Your task to perform on an android device: Open accessibility settings Image 0: 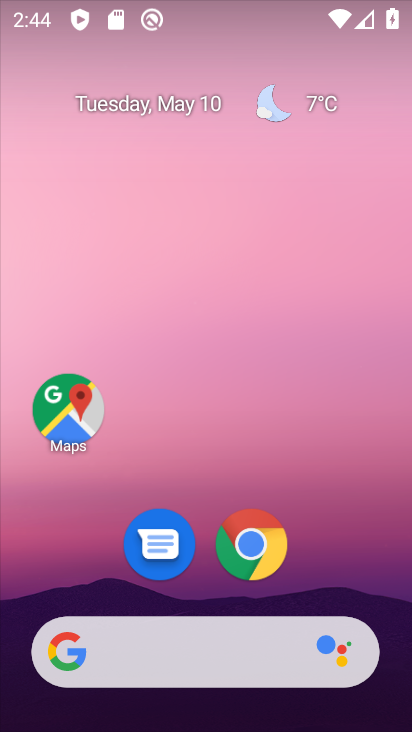
Step 0: drag from (313, 559) to (337, 104)
Your task to perform on an android device: Open accessibility settings Image 1: 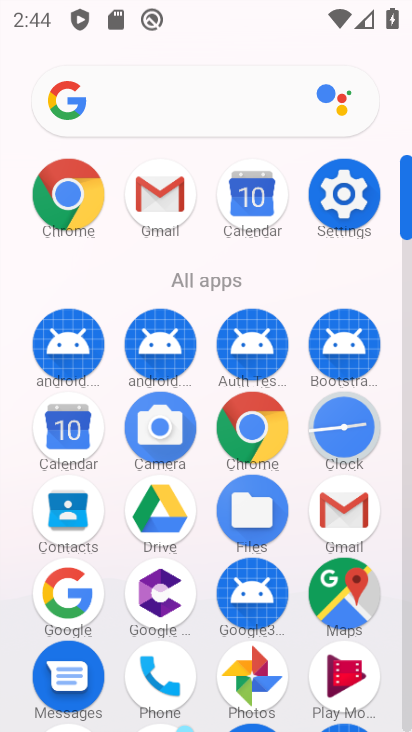
Step 1: click (340, 225)
Your task to perform on an android device: Open accessibility settings Image 2: 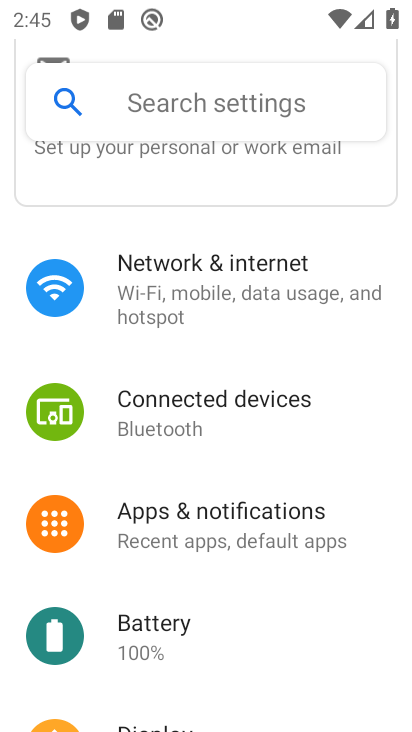
Step 2: drag from (256, 588) to (272, 292)
Your task to perform on an android device: Open accessibility settings Image 3: 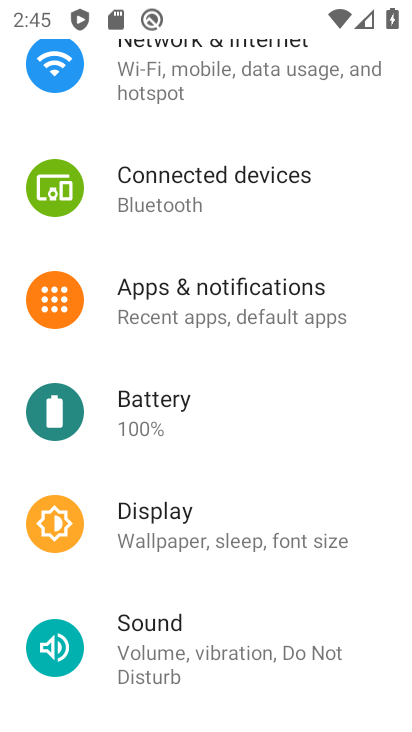
Step 3: drag from (258, 613) to (291, 221)
Your task to perform on an android device: Open accessibility settings Image 4: 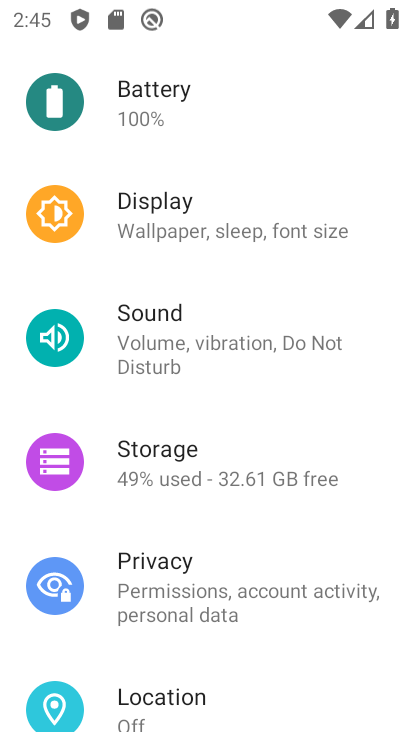
Step 4: drag from (276, 626) to (285, 241)
Your task to perform on an android device: Open accessibility settings Image 5: 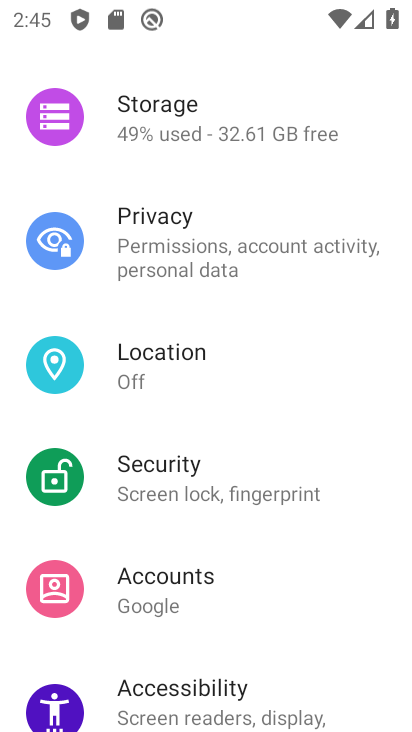
Step 5: drag from (249, 618) to (281, 300)
Your task to perform on an android device: Open accessibility settings Image 6: 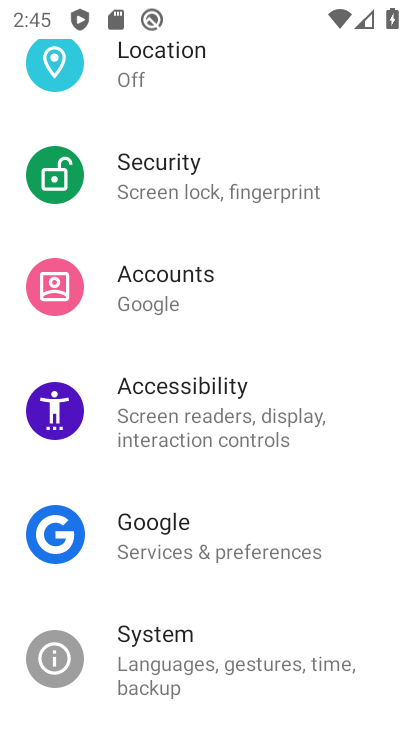
Step 6: click (235, 405)
Your task to perform on an android device: Open accessibility settings Image 7: 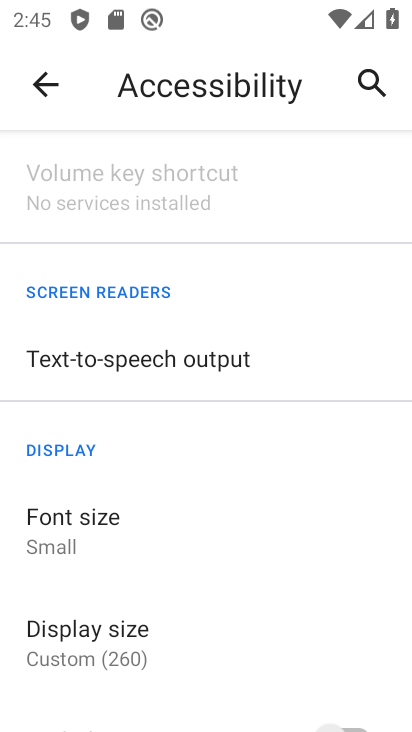
Step 7: task complete